Your task to perform on an android device: open wifi settings Image 0: 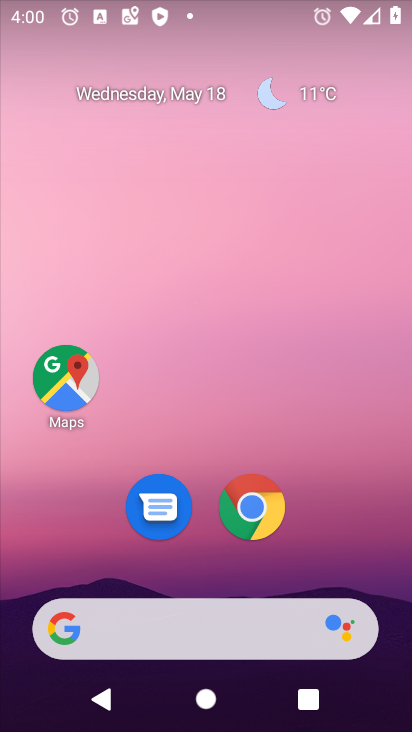
Step 0: drag from (400, 636) to (328, 130)
Your task to perform on an android device: open wifi settings Image 1: 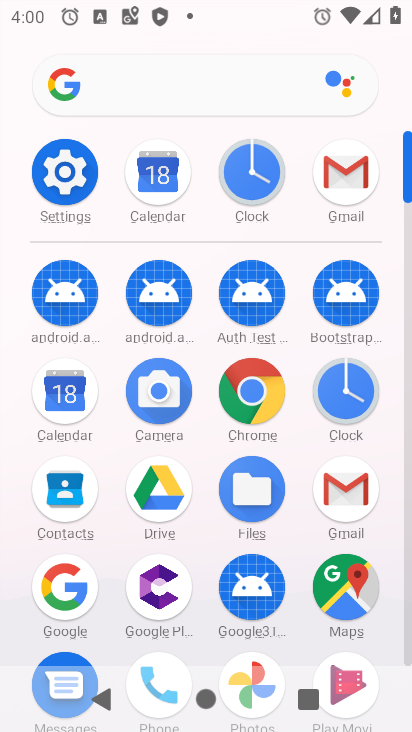
Step 1: click (409, 640)
Your task to perform on an android device: open wifi settings Image 2: 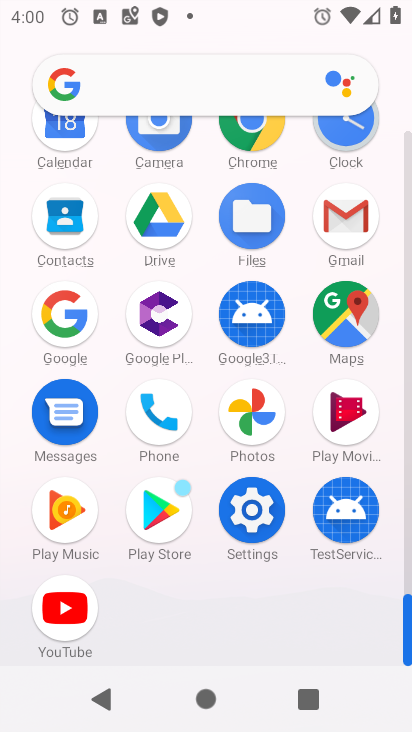
Step 2: click (250, 507)
Your task to perform on an android device: open wifi settings Image 3: 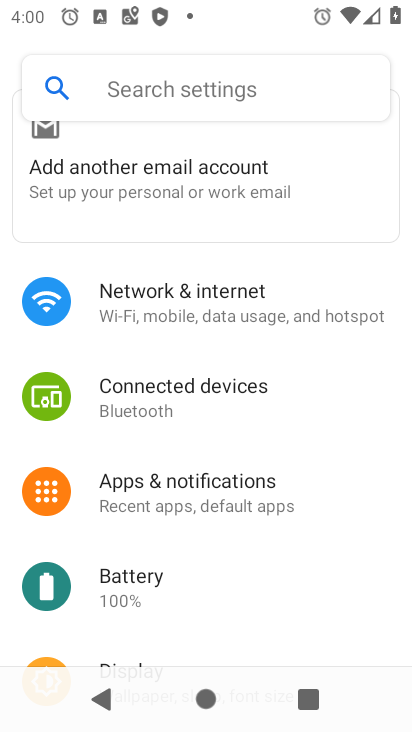
Step 3: click (146, 294)
Your task to perform on an android device: open wifi settings Image 4: 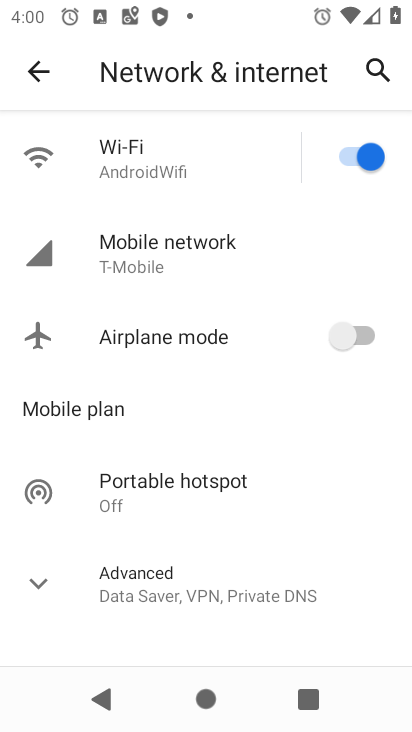
Step 4: click (127, 149)
Your task to perform on an android device: open wifi settings Image 5: 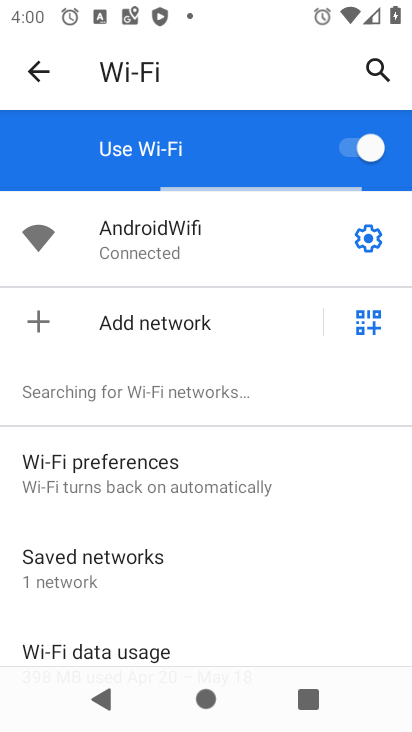
Step 5: drag from (191, 617) to (196, 286)
Your task to perform on an android device: open wifi settings Image 6: 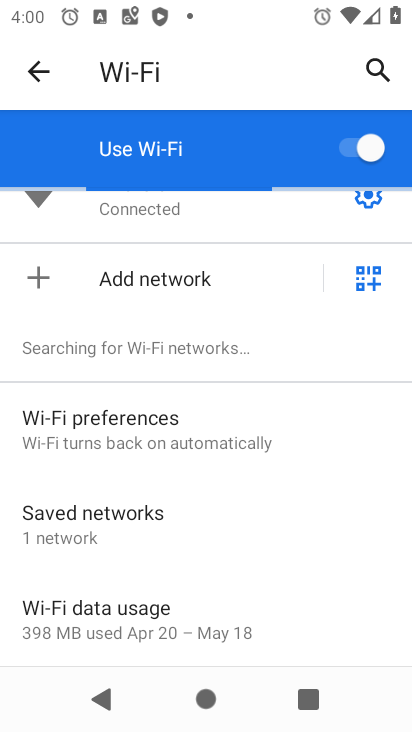
Step 6: click (368, 198)
Your task to perform on an android device: open wifi settings Image 7: 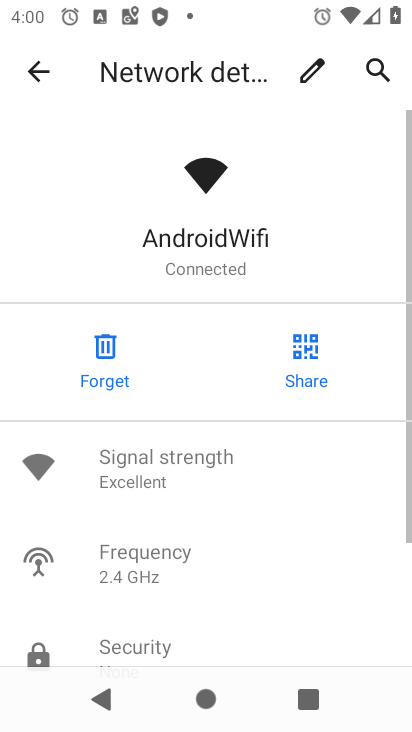
Step 7: drag from (226, 658) to (199, 253)
Your task to perform on an android device: open wifi settings Image 8: 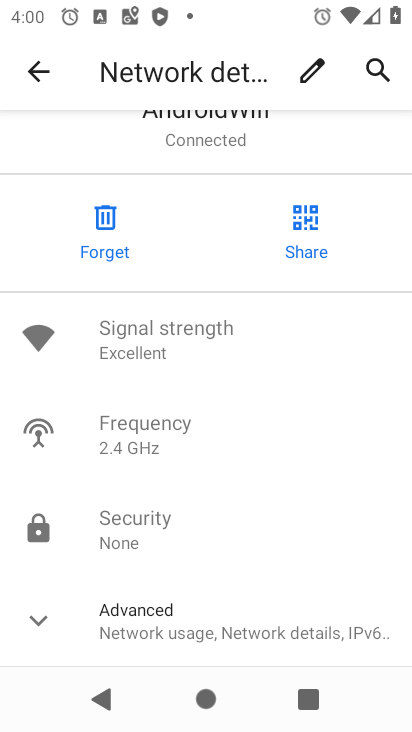
Step 8: click (39, 612)
Your task to perform on an android device: open wifi settings Image 9: 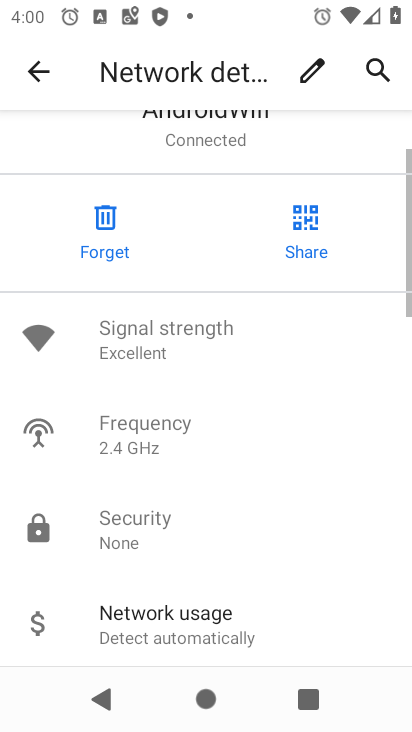
Step 9: task complete